Your task to perform on an android device: Open eBay Image 0: 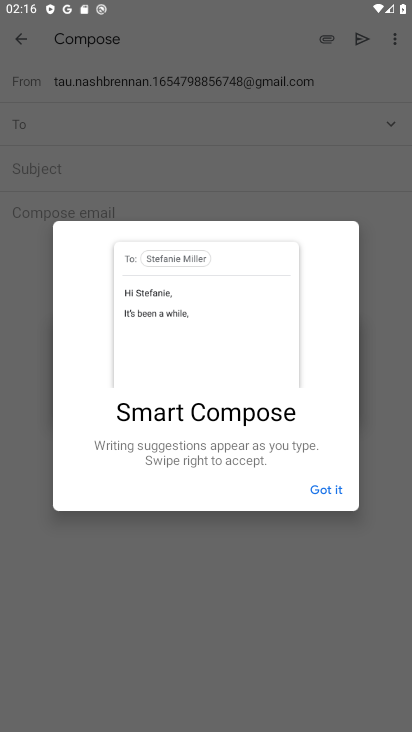
Step 0: press home button
Your task to perform on an android device: Open eBay Image 1: 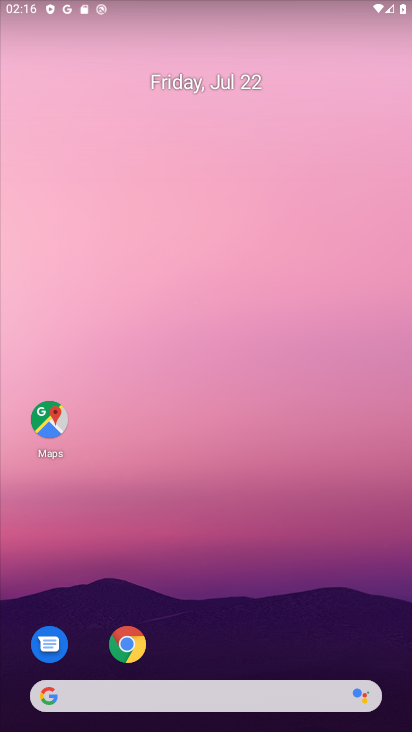
Step 1: click (227, 693)
Your task to perform on an android device: Open eBay Image 2: 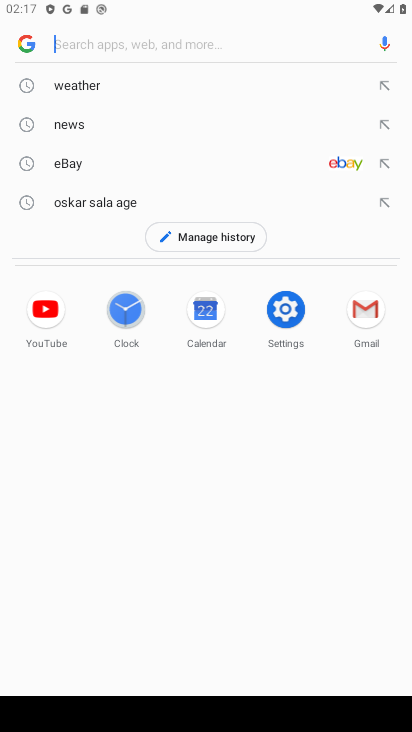
Step 2: click (345, 161)
Your task to perform on an android device: Open eBay Image 3: 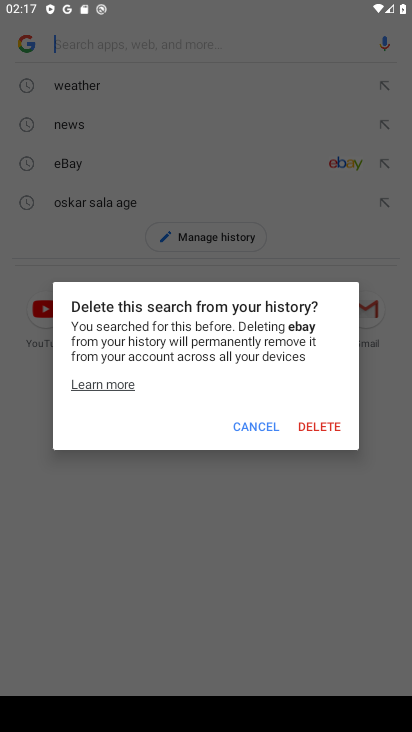
Step 3: click (253, 427)
Your task to perform on an android device: Open eBay Image 4: 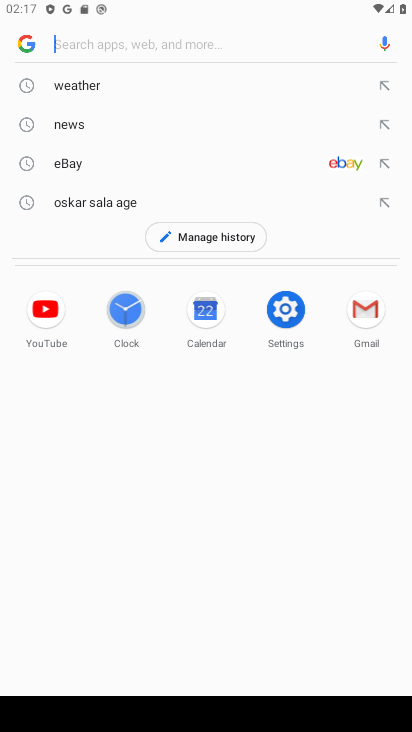
Step 4: click (119, 159)
Your task to perform on an android device: Open eBay Image 5: 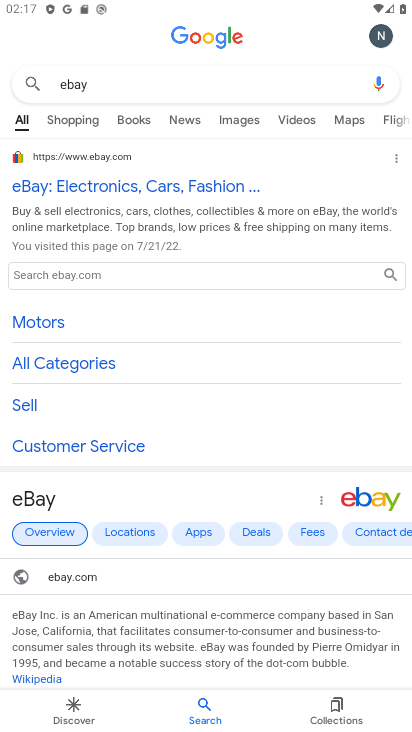
Step 5: click (78, 162)
Your task to perform on an android device: Open eBay Image 6: 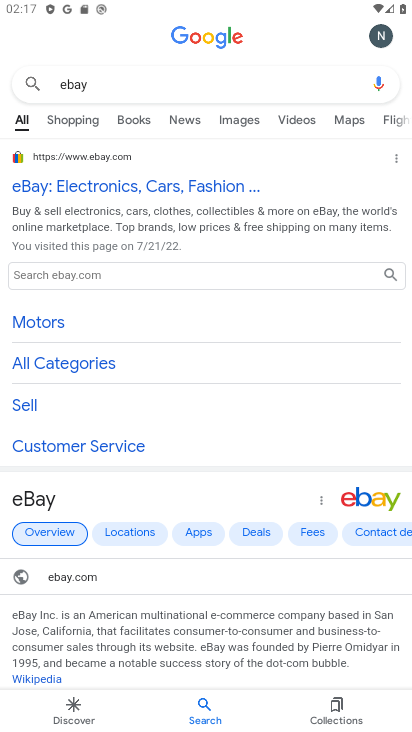
Step 6: click (108, 181)
Your task to perform on an android device: Open eBay Image 7: 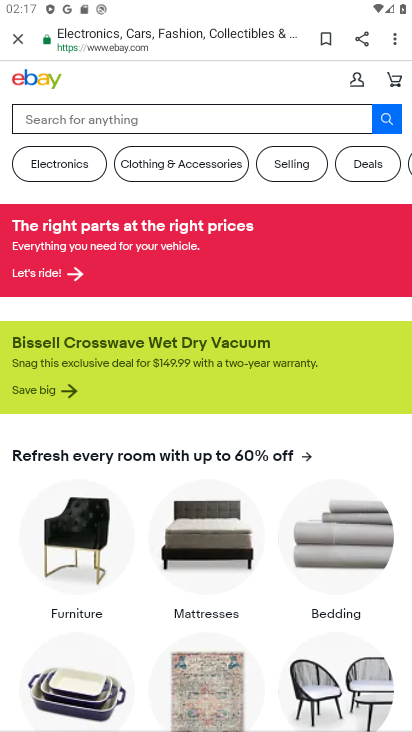
Step 7: task complete